Your task to perform on an android device: Open settings Image 0: 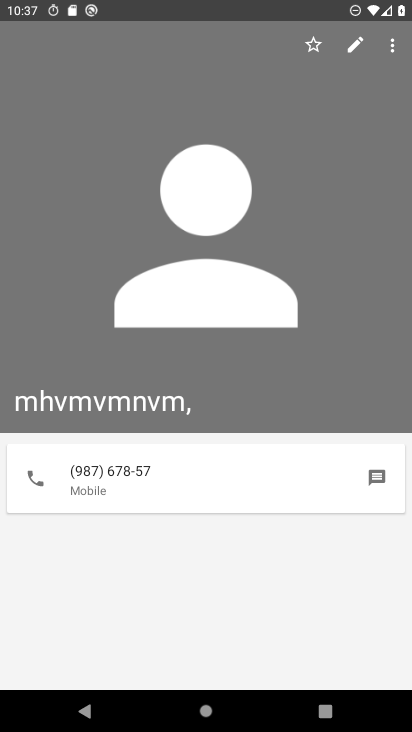
Step 0: press home button
Your task to perform on an android device: Open settings Image 1: 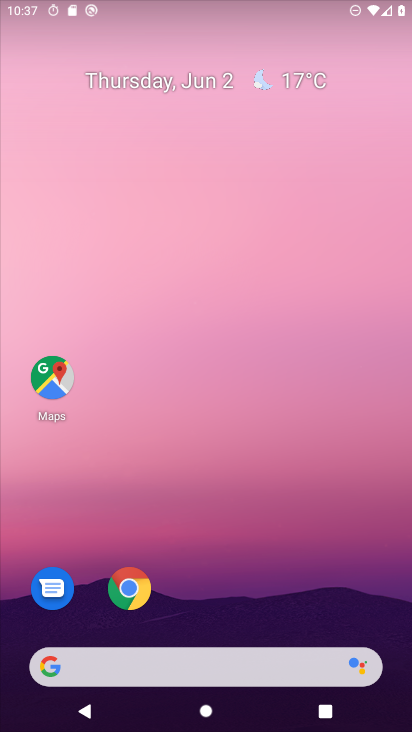
Step 1: drag from (229, 518) to (234, 383)
Your task to perform on an android device: Open settings Image 2: 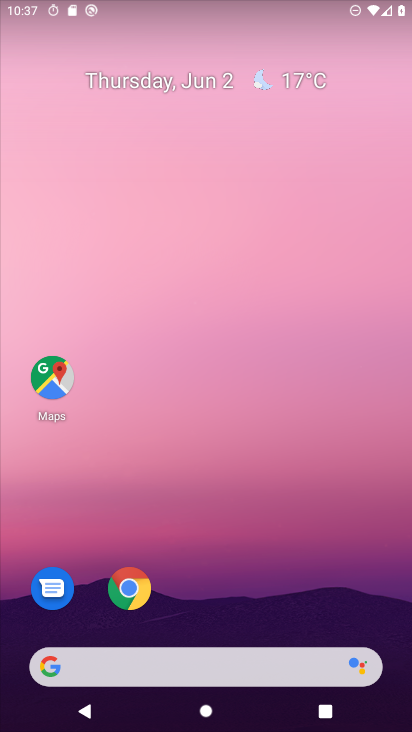
Step 2: drag from (198, 648) to (278, 133)
Your task to perform on an android device: Open settings Image 3: 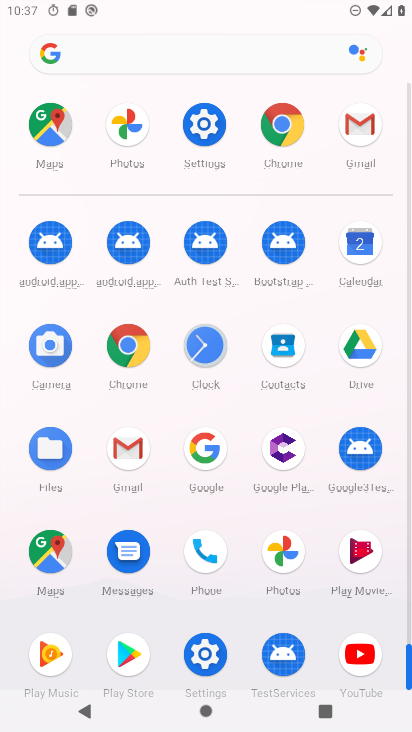
Step 3: click (214, 651)
Your task to perform on an android device: Open settings Image 4: 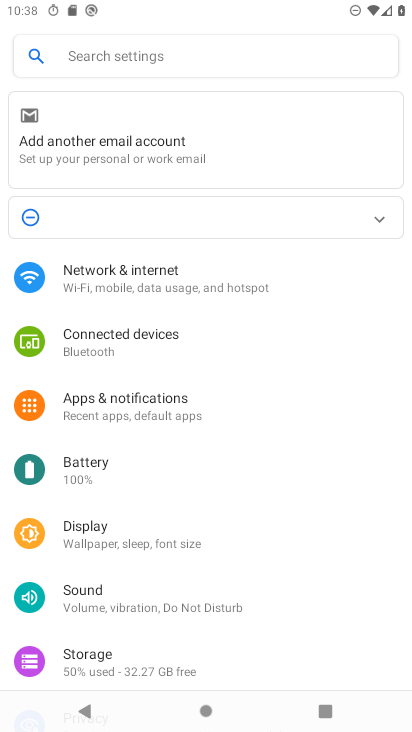
Step 4: task complete